Your task to perform on an android device: Go to privacy settings Image 0: 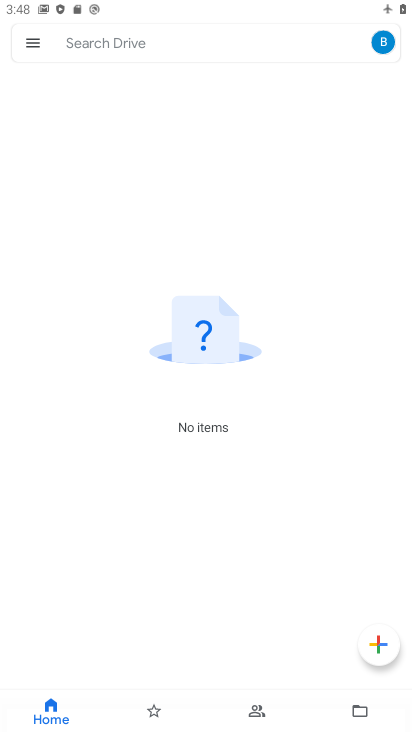
Step 0: press home button
Your task to perform on an android device: Go to privacy settings Image 1: 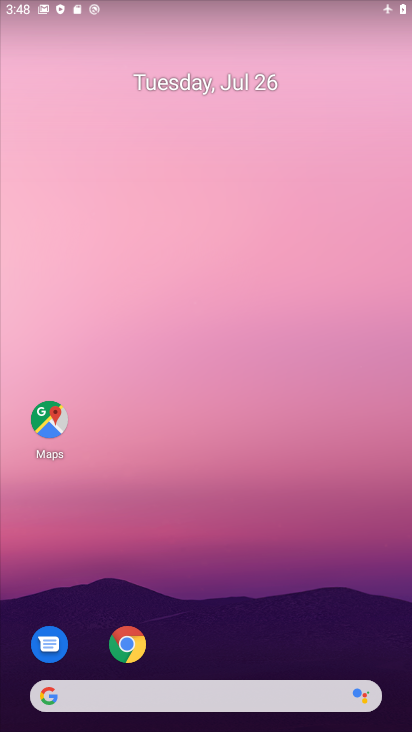
Step 1: drag from (391, 657) to (352, 139)
Your task to perform on an android device: Go to privacy settings Image 2: 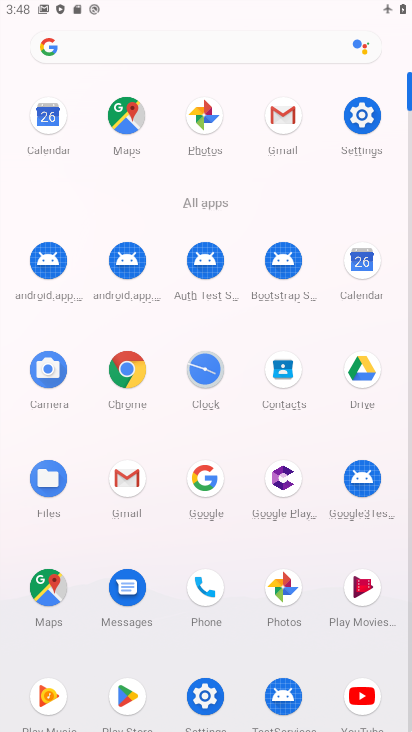
Step 2: click (206, 697)
Your task to perform on an android device: Go to privacy settings Image 3: 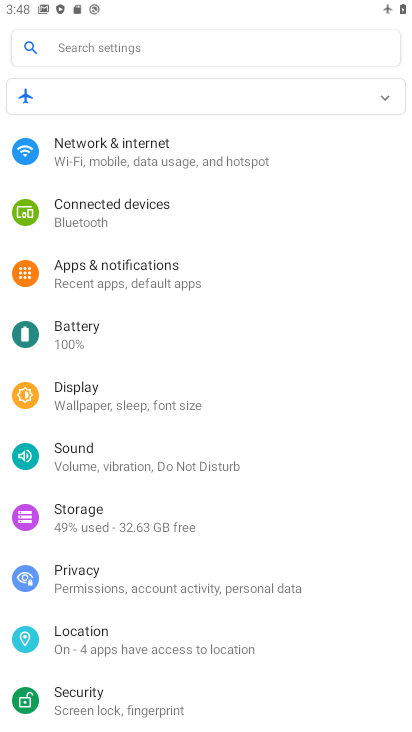
Step 3: click (85, 565)
Your task to perform on an android device: Go to privacy settings Image 4: 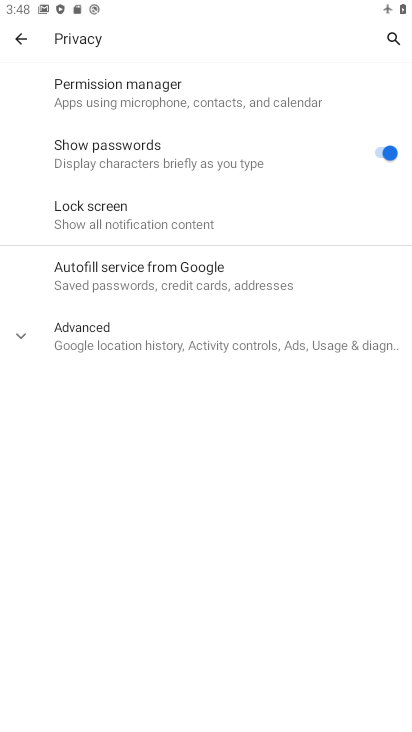
Step 4: click (16, 330)
Your task to perform on an android device: Go to privacy settings Image 5: 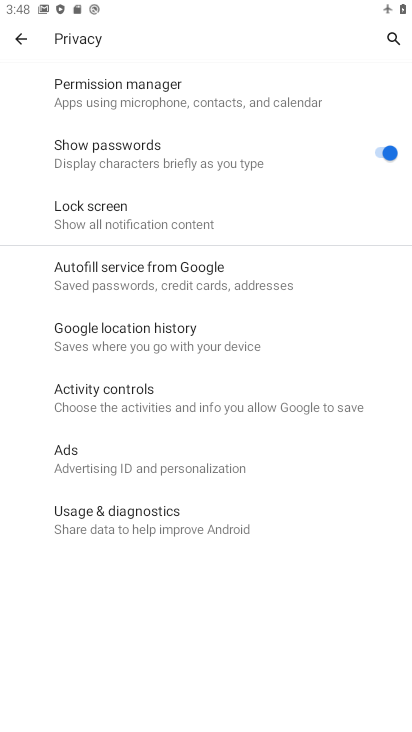
Step 5: task complete